Your task to perform on an android device: turn off javascript in the chrome app Image 0: 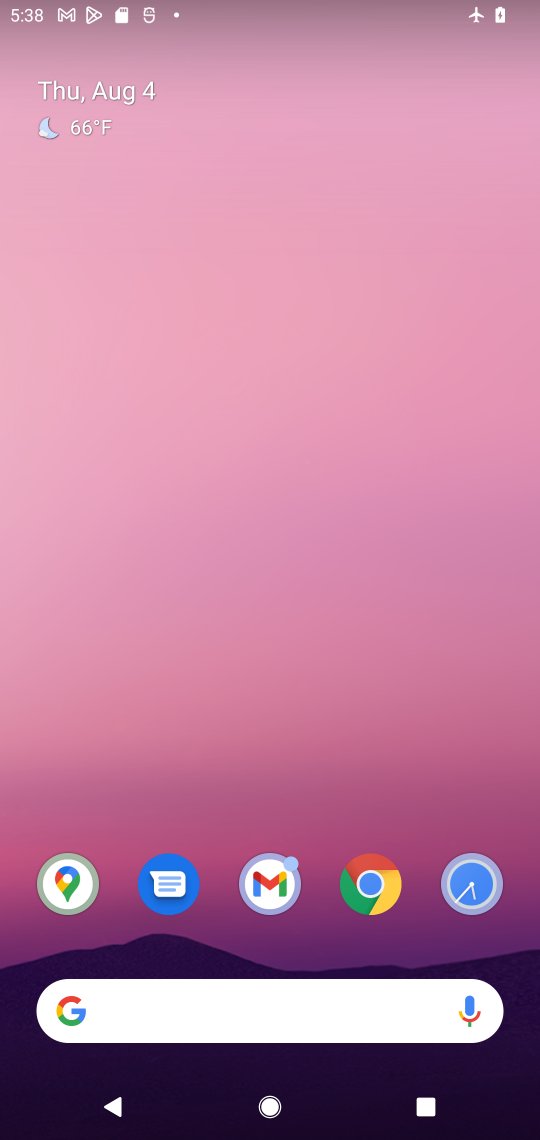
Step 0: click (365, 915)
Your task to perform on an android device: turn off javascript in the chrome app Image 1: 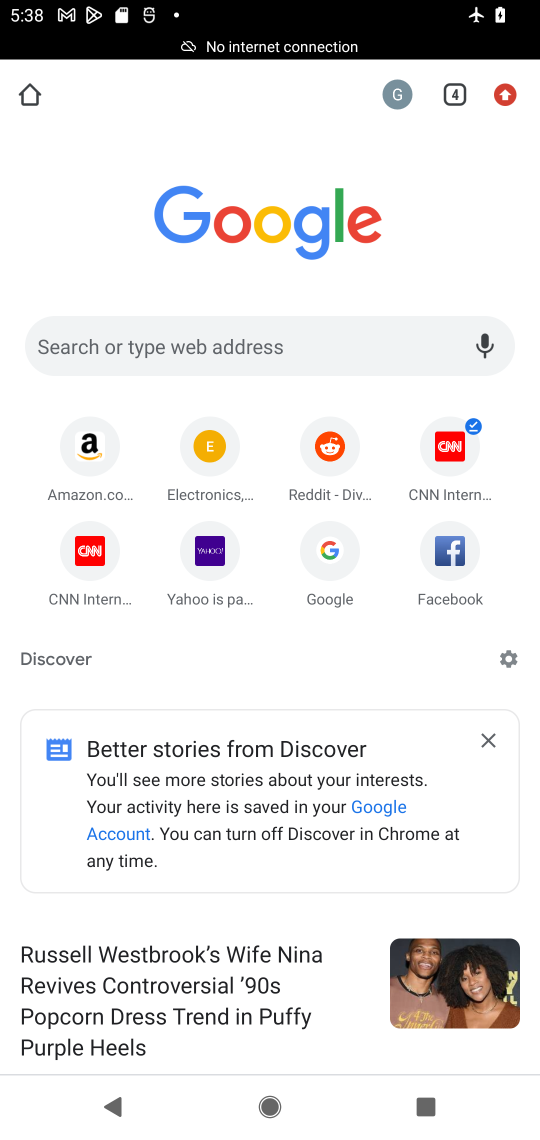
Step 1: click (495, 98)
Your task to perform on an android device: turn off javascript in the chrome app Image 2: 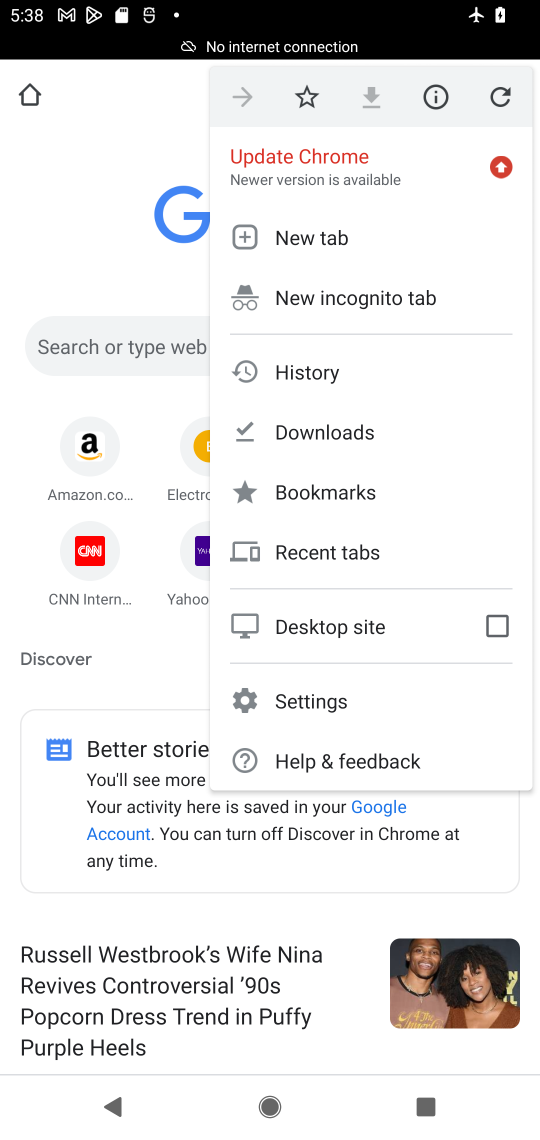
Step 2: click (294, 694)
Your task to perform on an android device: turn off javascript in the chrome app Image 3: 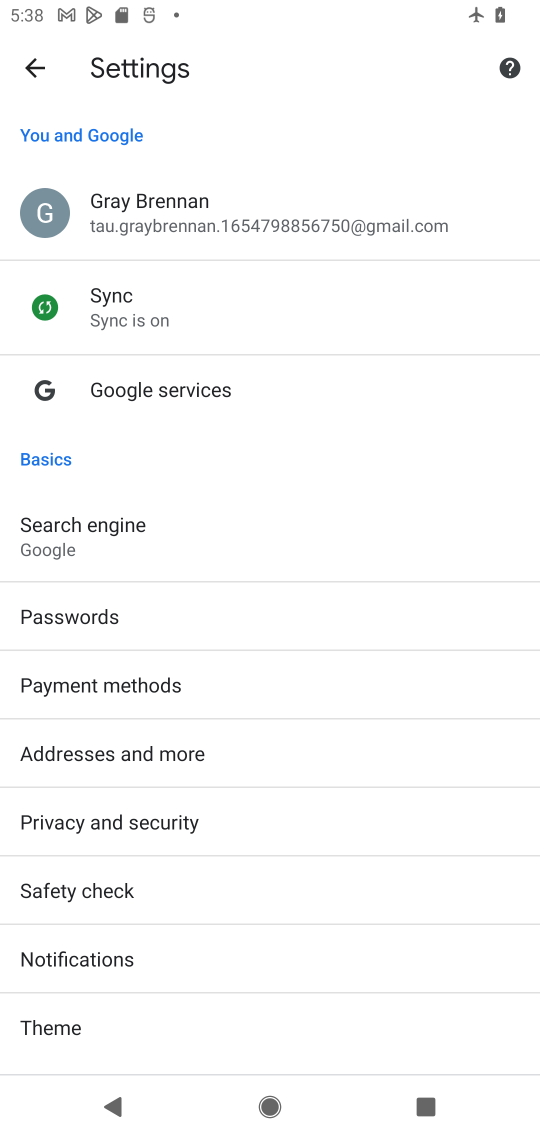
Step 3: drag from (211, 970) to (207, 311)
Your task to perform on an android device: turn off javascript in the chrome app Image 4: 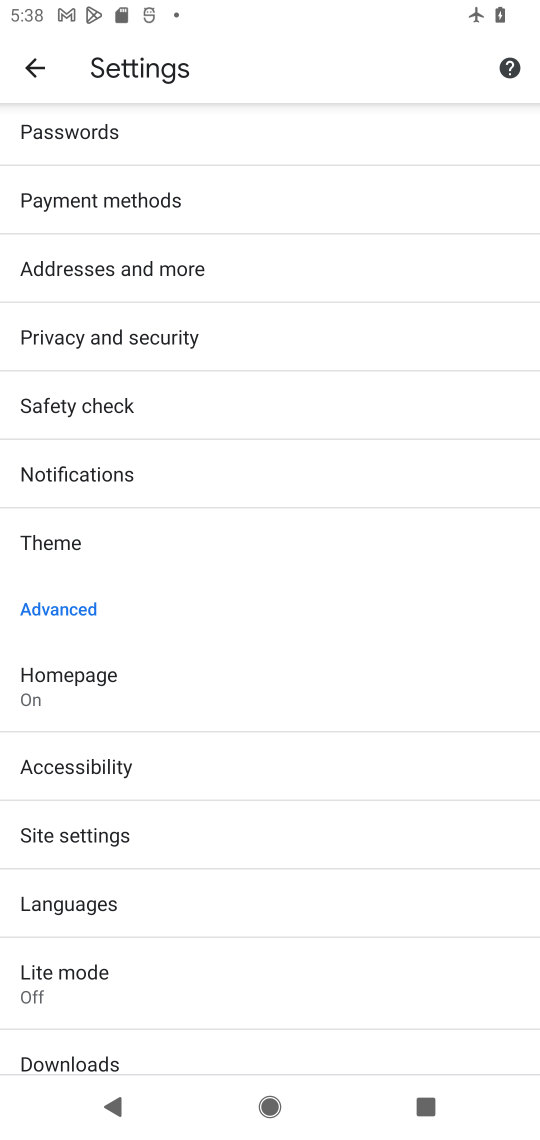
Step 4: click (190, 842)
Your task to perform on an android device: turn off javascript in the chrome app Image 5: 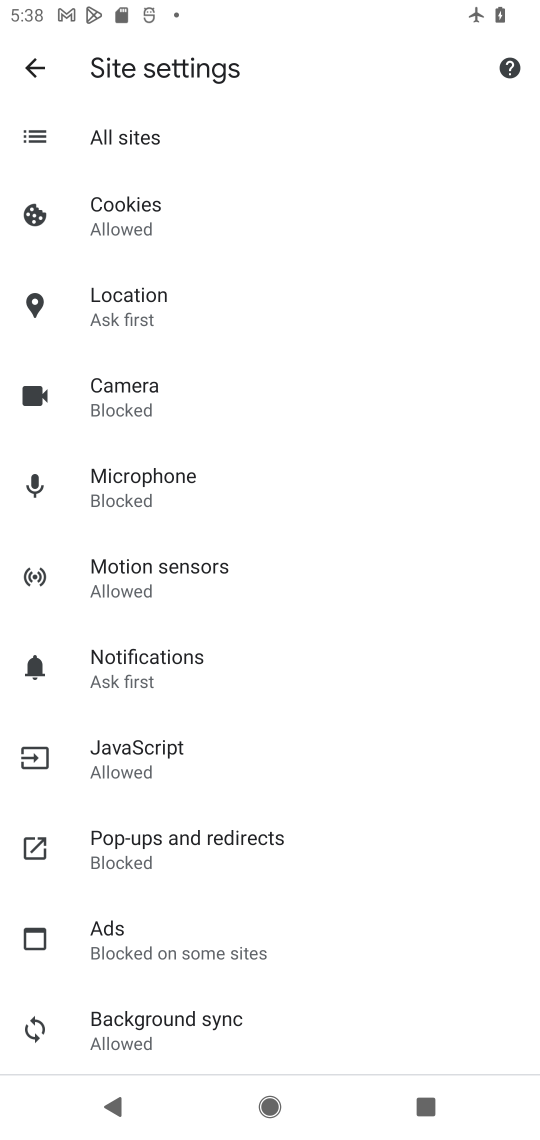
Step 5: task complete